Your task to perform on an android device: When is my next appointment? Image 0: 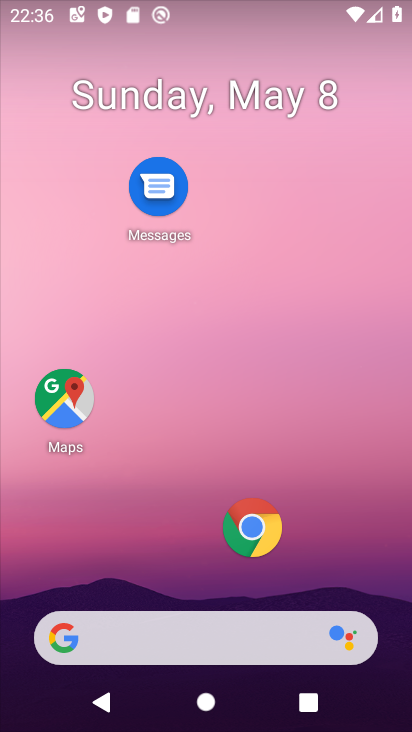
Step 0: drag from (195, 564) to (198, 154)
Your task to perform on an android device: When is my next appointment? Image 1: 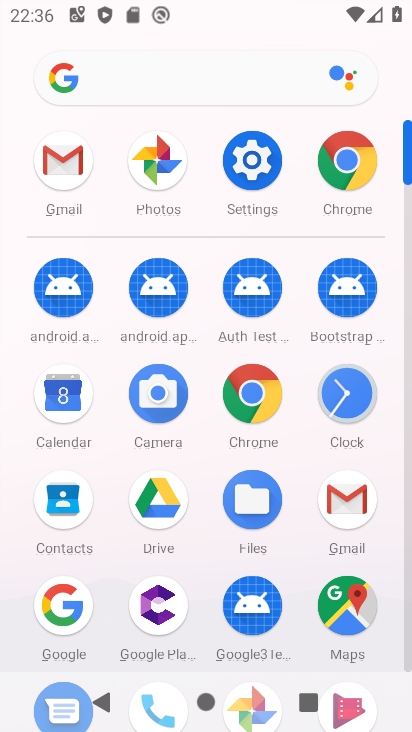
Step 1: click (68, 394)
Your task to perform on an android device: When is my next appointment? Image 2: 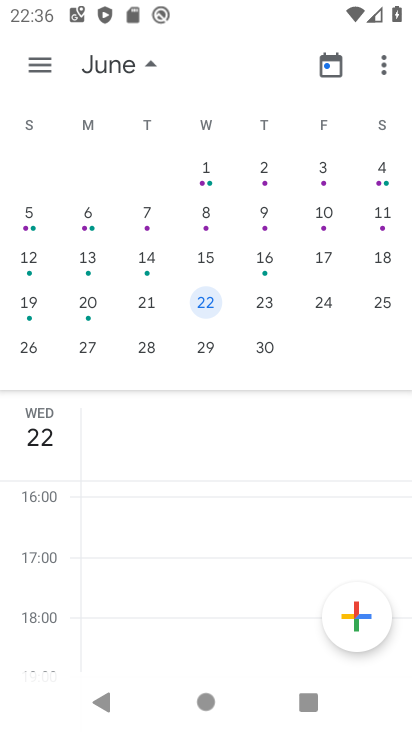
Step 2: drag from (136, 364) to (406, 367)
Your task to perform on an android device: When is my next appointment? Image 3: 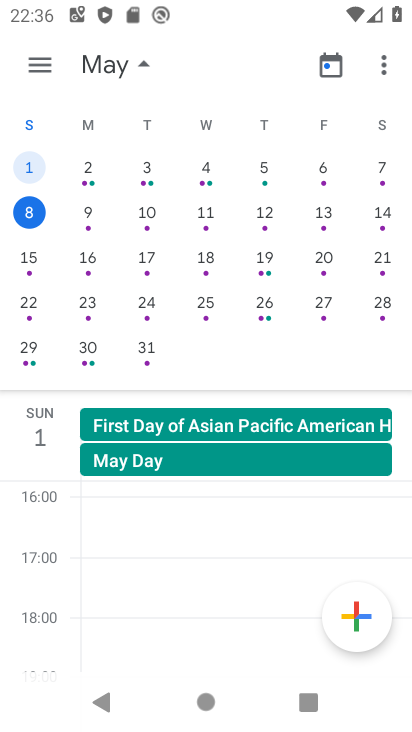
Step 3: click (86, 213)
Your task to perform on an android device: When is my next appointment? Image 4: 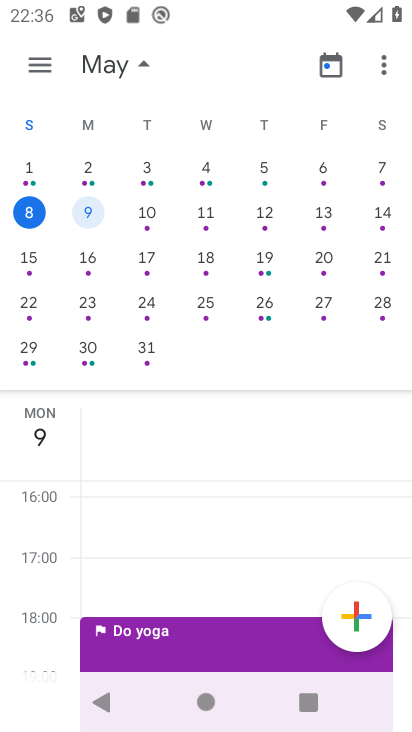
Step 4: task complete